Your task to perform on an android device: open app "Walmart Shopping & Grocery" (install if not already installed) and go to login screen Image 0: 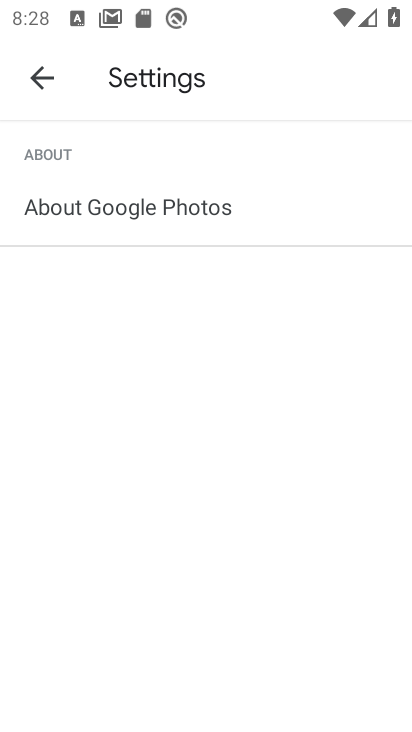
Step 0: press back button
Your task to perform on an android device: open app "Walmart Shopping & Grocery" (install if not already installed) and go to login screen Image 1: 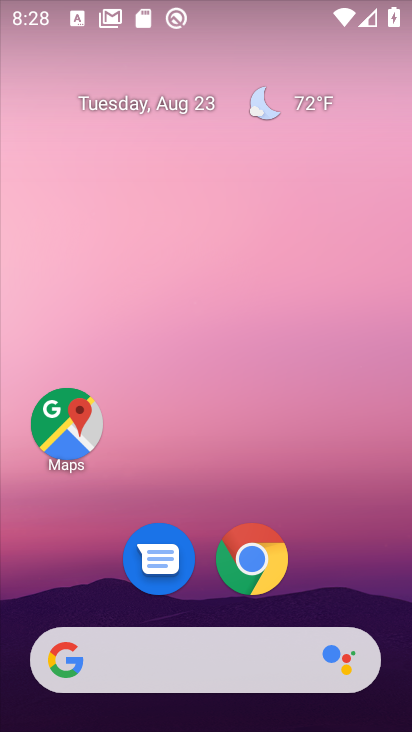
Step 1: drag from (199, 487) to (197, 145)
Your task to perform on an android device: open app "Walmart Shopping & Grocery" (install if not already installed) and go to login screen Image 2: 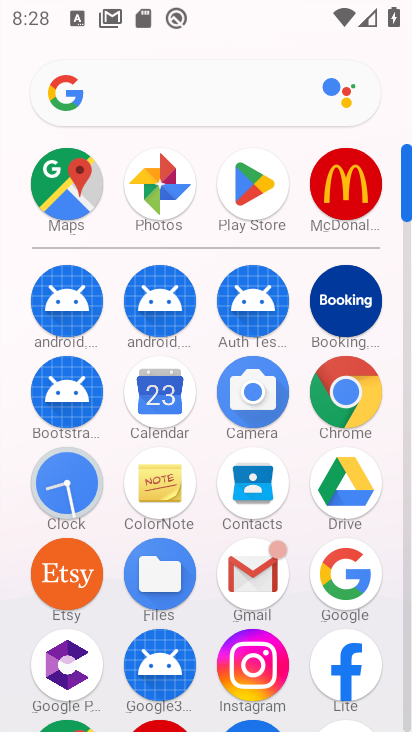
Step 2: click (246, 169)
Your task to perform on an android device: open app "Walmart Shopping & Grocery" (install if not already installed) and go to login screen Image 3: 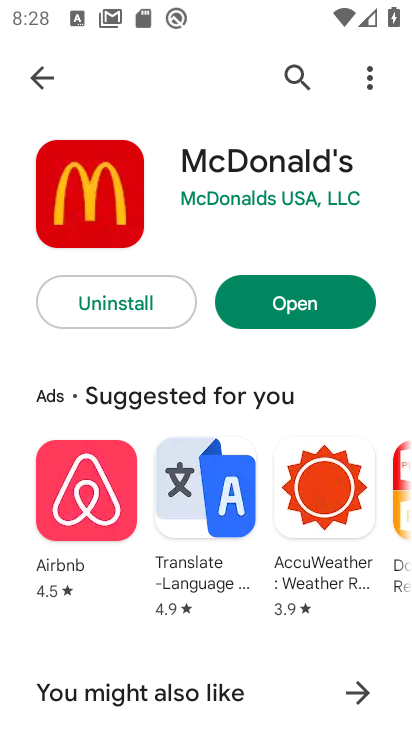
Step 3: click (286, 85)
Your task to perform on an android device: open app "Walmart Shopping & Grocery" (install if not already installed) and go to login screen Image 4: 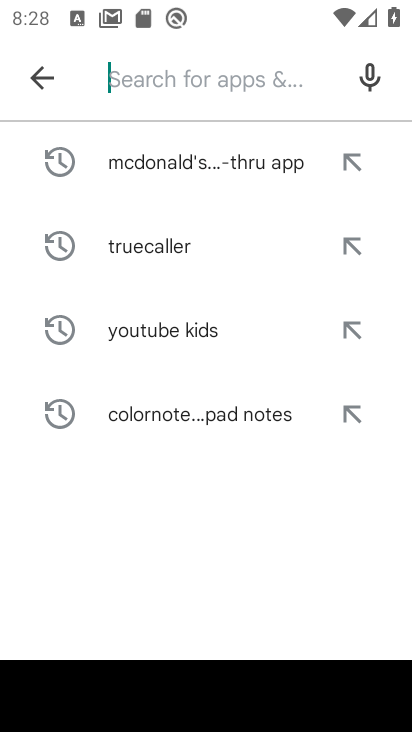
Step 4: type "Walmart Shopping & Grocery"
Your task to perform on an android device: open app "Walmart Shopping & Grocery" (install if not already installed) and go to login screen Image 5: 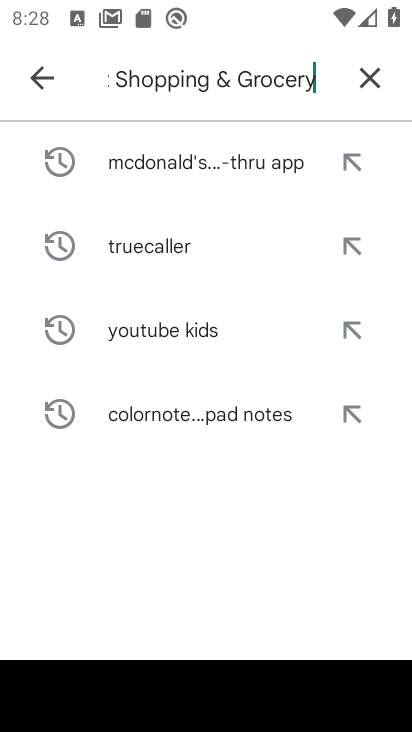
Step 5: type ""
Your task to perform on an android device: open app "Walmart Shopping & Grocery" (install if not already installed) and go to login screen Image 6: 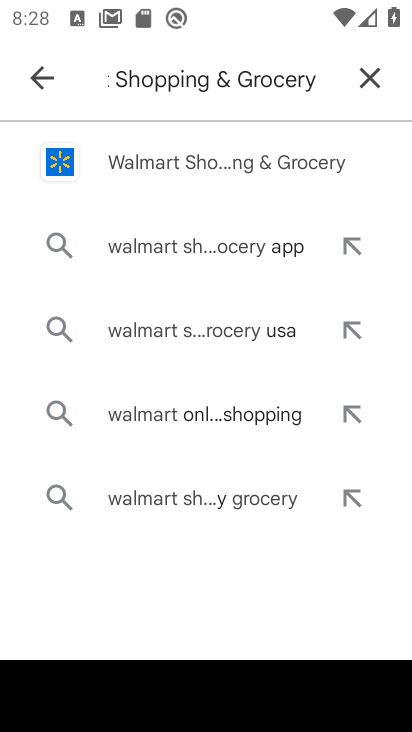
Step 6: click (199, 166)
Your task to perform on an android device: open app "Walmart Shopping & Grocery" (install if not already installed) and go to login screen Image 7: 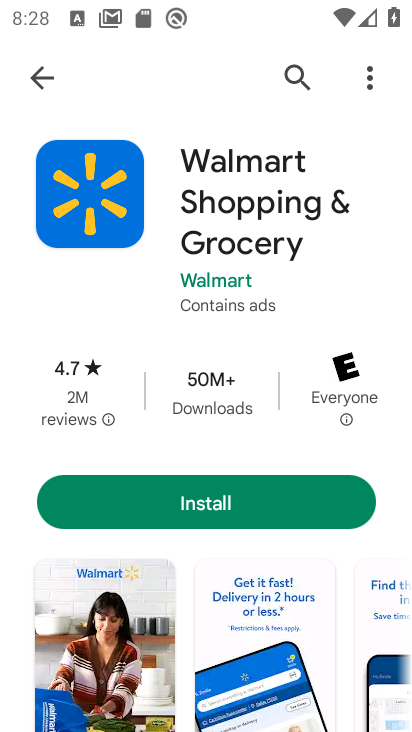
Step 7: click (196, 482)
Your task to perform on an android device: open app "Walmart Shopping & Grocery" (install if not already installed) and go to login screen Image 8: 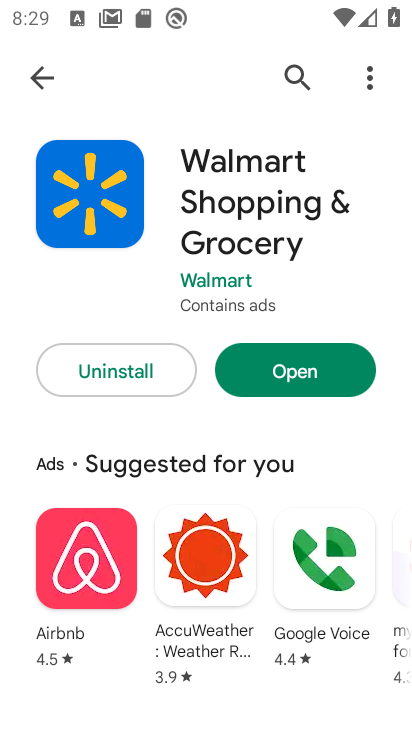
Step 8: click (256, 362)
Your task to perform on an android device: open app "Walmart Shopping & Grocery" (install if not already installed) and go to login screen Image 9: 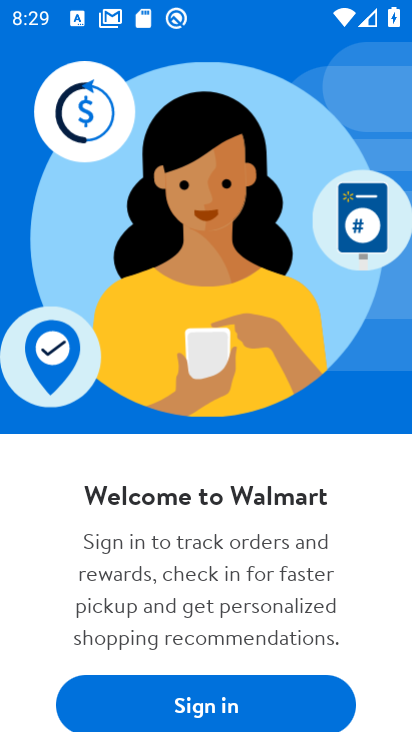
Step 9: task complete